Your task to perform on an android device: What's the weather going to be tomorrow? Image 0: 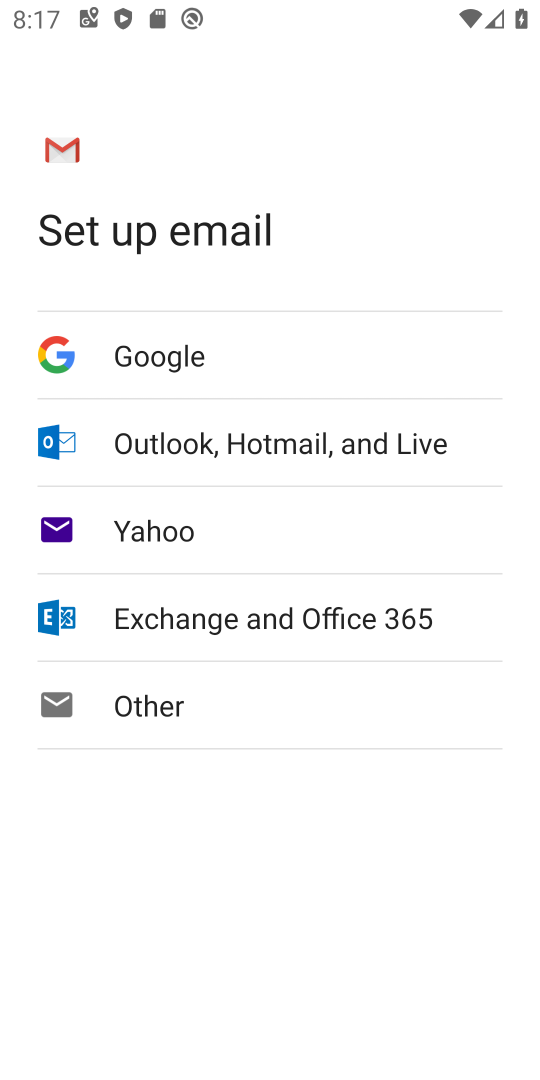
Step 0: press home button
Your task to perform on an android device: What's the weather going to be tomorrow? Image 1: 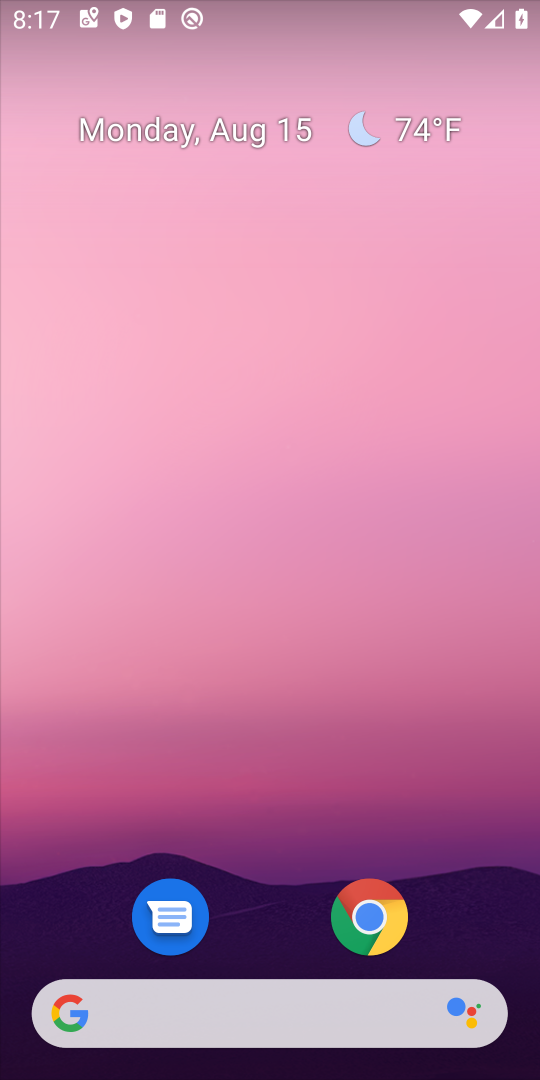
Step 1: click (422, 121)
Your task to perform on an android device: What's the weather going to be tomorrow? Image 2: 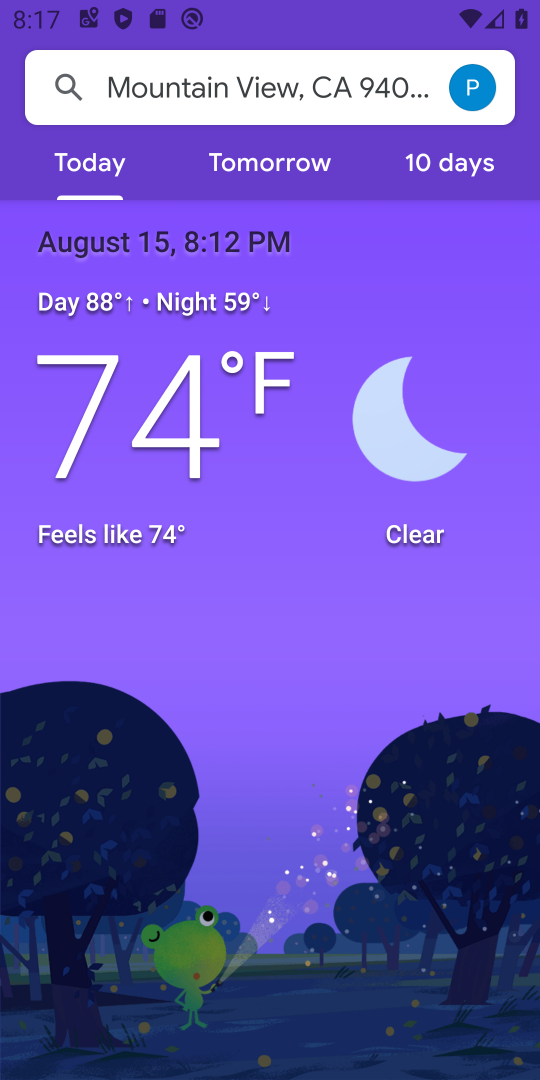
Step 2: click (297, 169)
Your task to perform on an android device: What's the weather going to be tomorrow? Image 3: 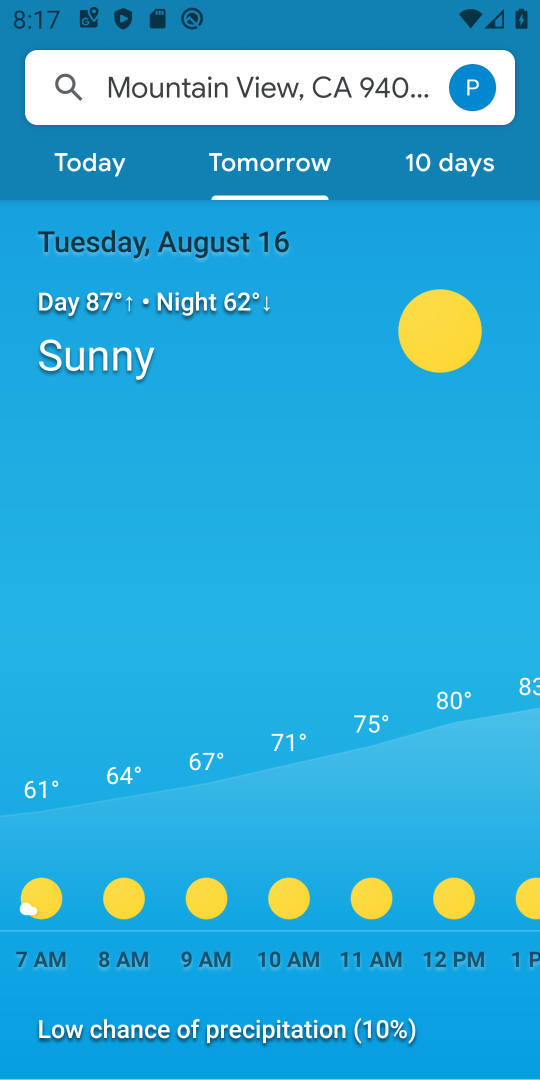
Step 3: task complete